Your task to perform on an android device: search for starred emails in the gmail app Image 0: 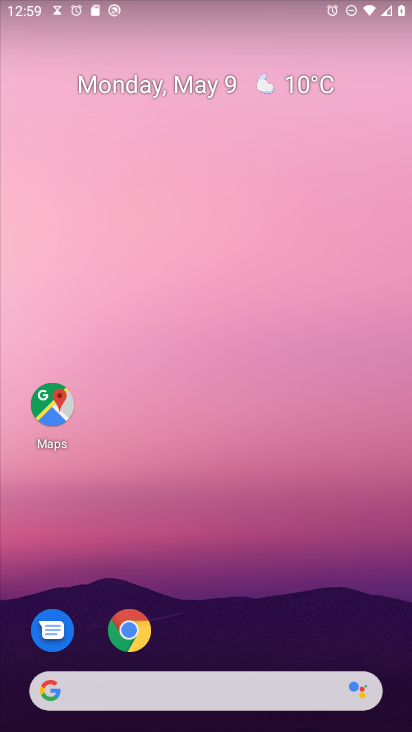
Step 0: drag from (233, 578) to (330, 162)
Your task to perform on an android device: search for starred emails in the gmail app Image 1: 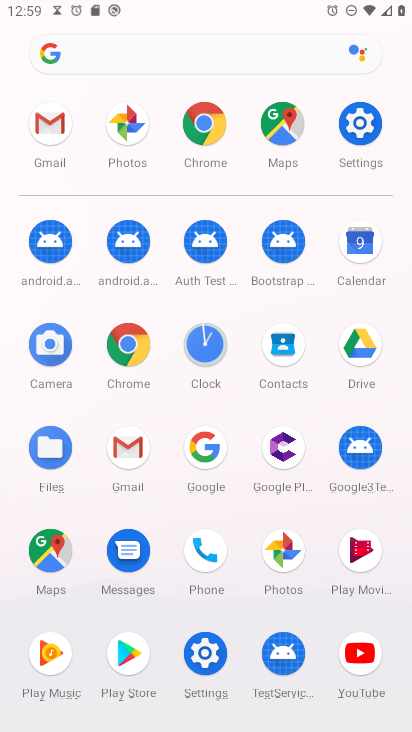
Step 1: click (42, 127)
Your task to perform on an android device: search for starred emails in the gmail app Image 2: 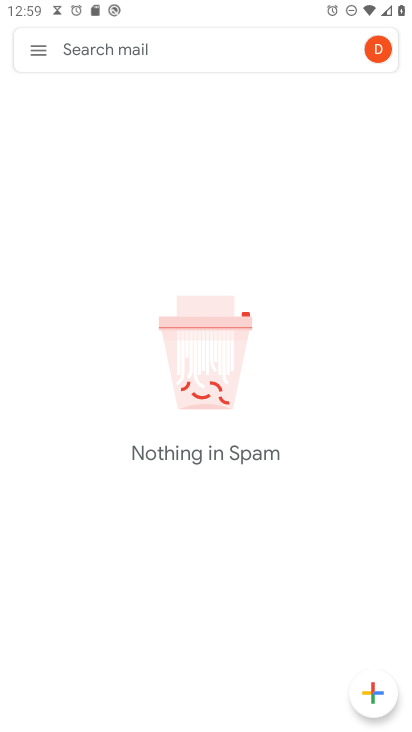
Step 2: click (45, 49)
Your task to perform on an android device: search for starred emails in the gmail app Image 3: 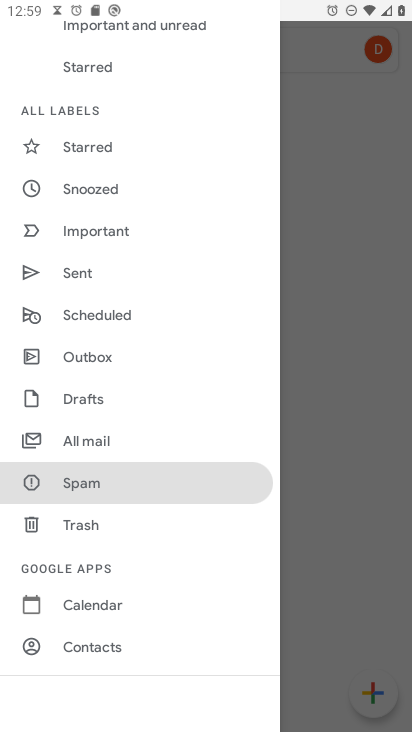
Step 3: click (100, 149)
Your task to perform on an android device: search for starred emails in the gmail app Image 4: 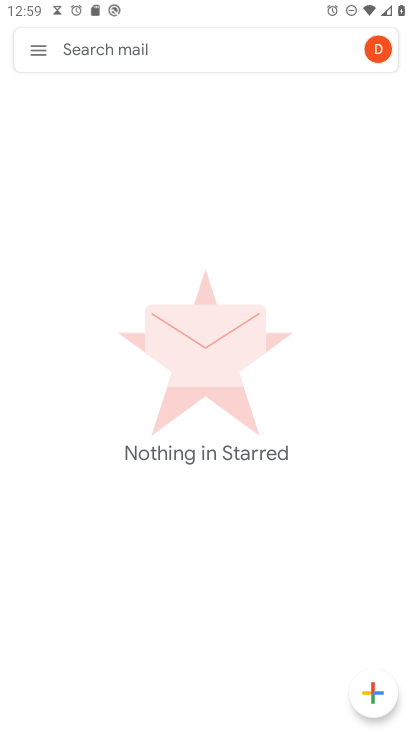
Step 4: task complete